Your task to perform on an android device: Open eBay Image 0: 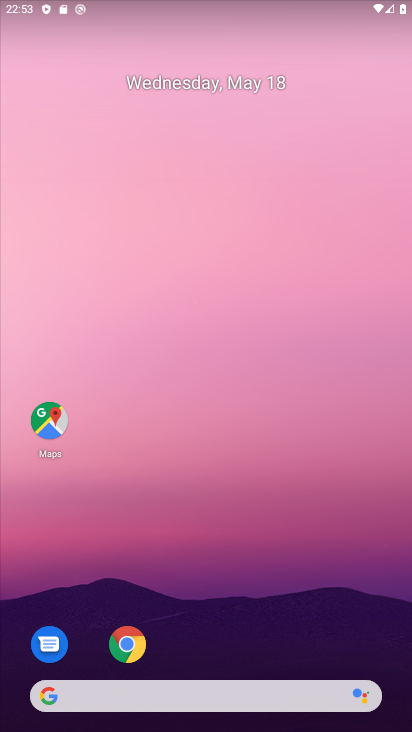
Step 0: click (135, 644)
Your task to perform on an android device: Open eBay Image 1: 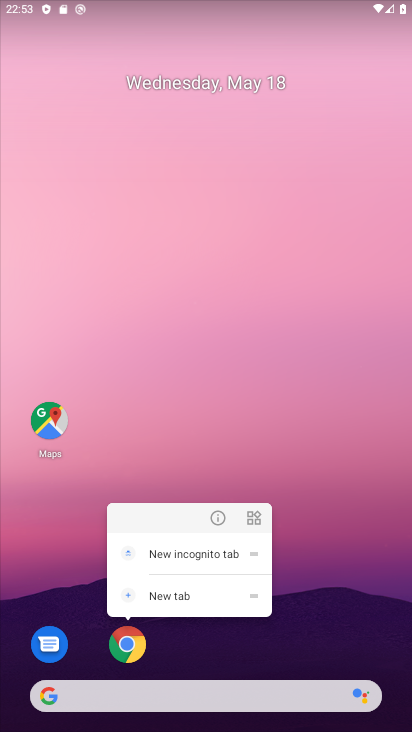
Step 1: click (121, 636)
Your task to perform on an android device: Open eBay Image 2: 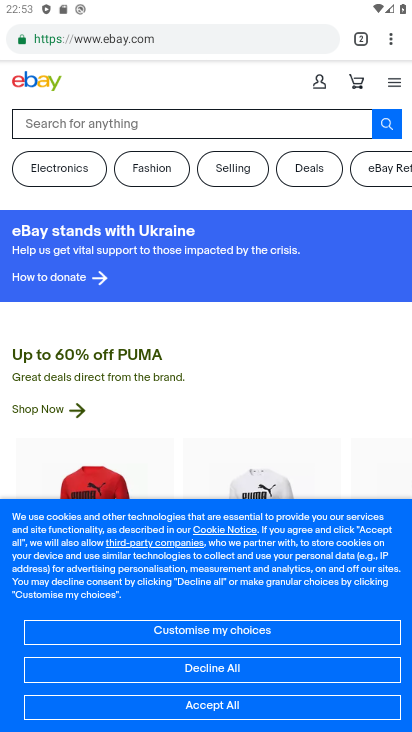
Step 2: task complete